Your task to perform on an android device: check google app version Image 0: 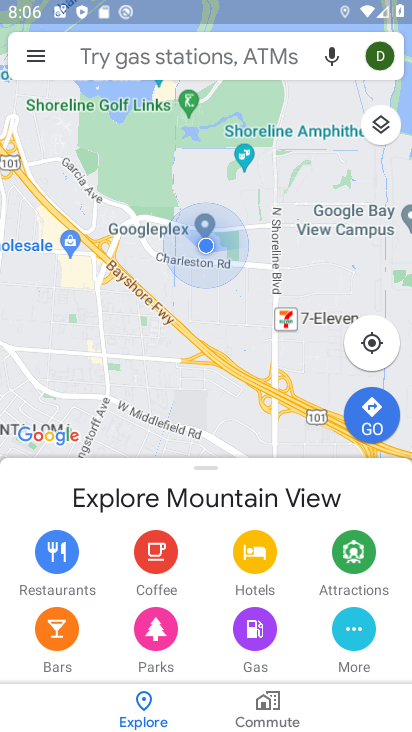
Step 0: press back button
Your task to perform on an android device: check google app version Image 1: 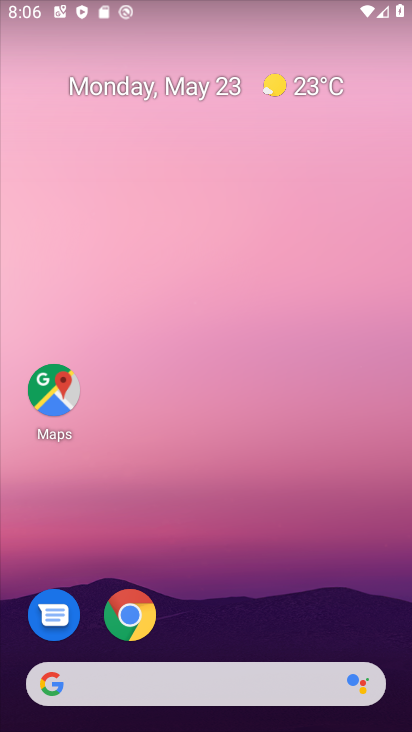
Step 1: drag from (242, 608) to (200, 171)
Your task to perform on an android device: check google app version Image 2: 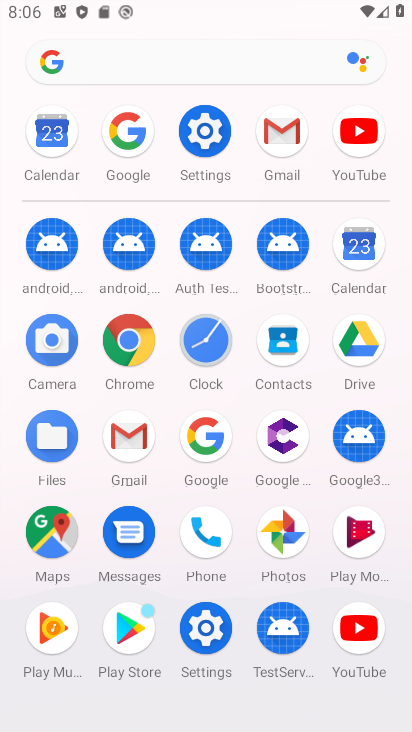
Step 2: click (123, 131)
Your task to perform on an android device: check google app version Image 3: 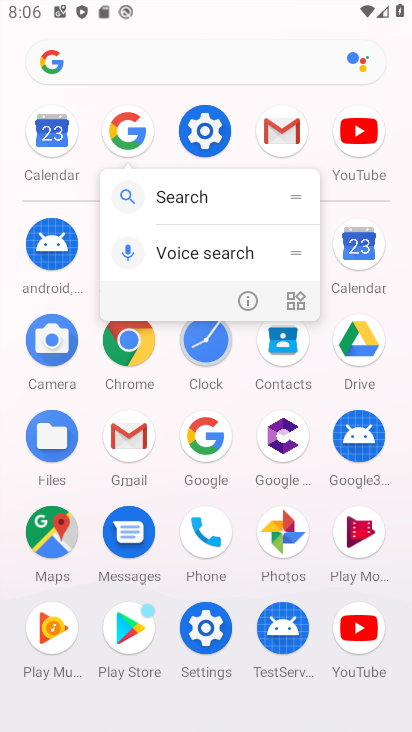
Step 3: click (245, 296)
Your task to perform on an android device: check google app version Image 4: 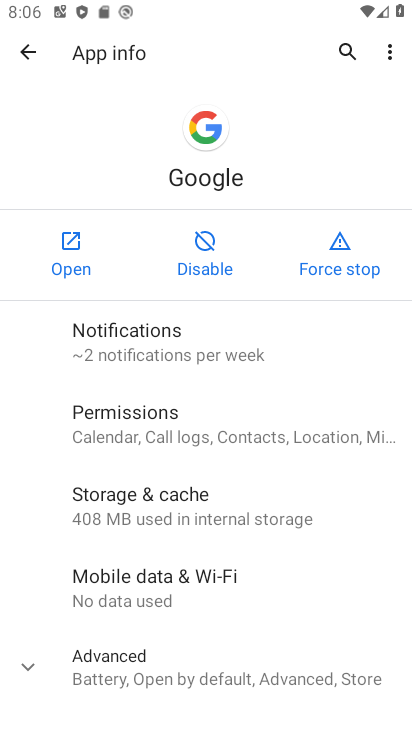
Step 4: click (177, 667)
Your task to perform on an android device: check google app version Image 5: 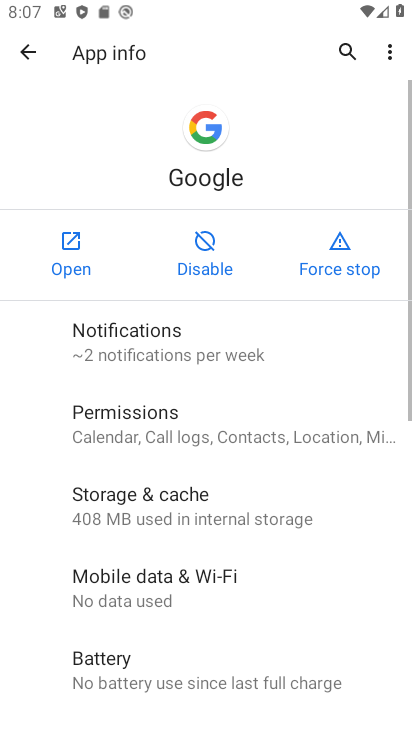
Step 5: task complete